Your task to perform on an android device: Search for razer thresher on target, select the first entry, add it to the cart, then select checkout. Image 0: 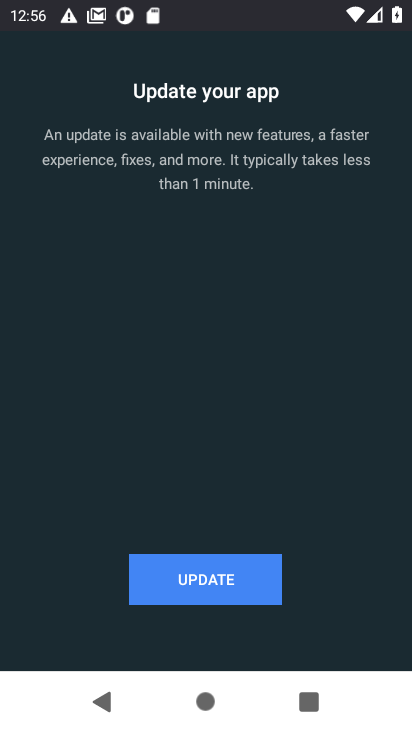
Step 0: press home button
Your task to perform on an android device: Search for razer thresher on target, select the first entry, add it to the cart, then select checkout. Image 1: 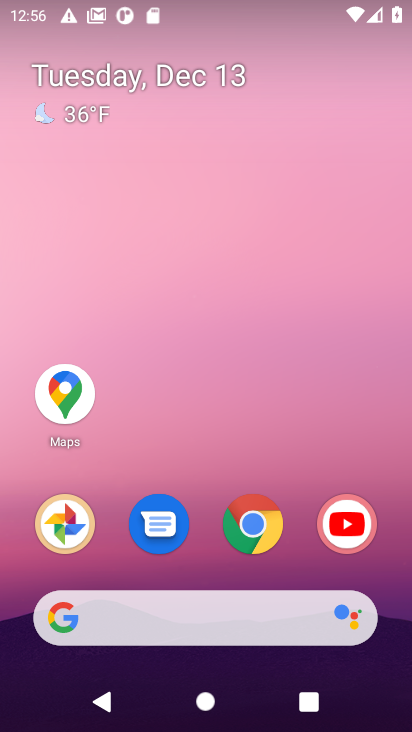
Step 1: click (256, 525)
Your task to perform on an android device: Search for razer thresher on target, select the first entry, add it to the cart, then select checkout. Image 2: 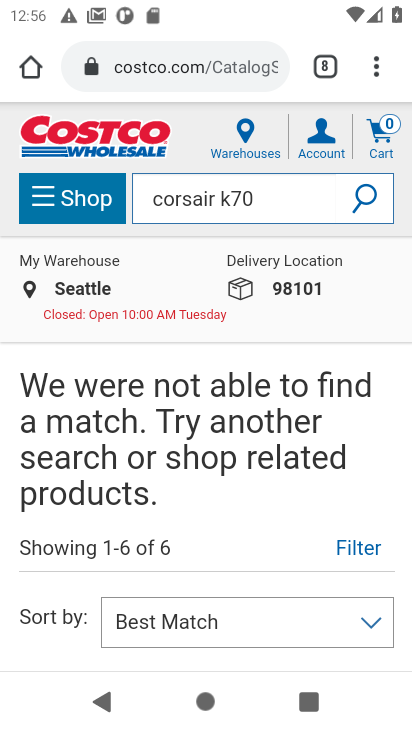
Step 2: click (180, 75)
Your task to perform on an android device: Search for razer thresher on target, select the first entry, add it to the cart, then select checkout. Image 3: 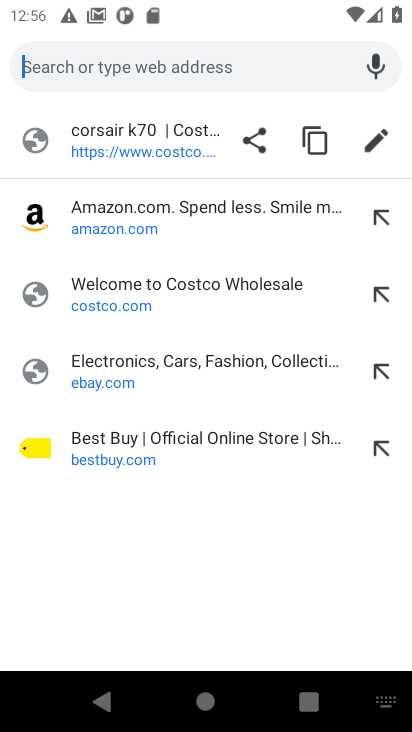
Step 3: type "target.com"
Your task to perform on an android device: Search for razer thresher on target, select the first entry, add it to the cart, then select checkout. Image 4: 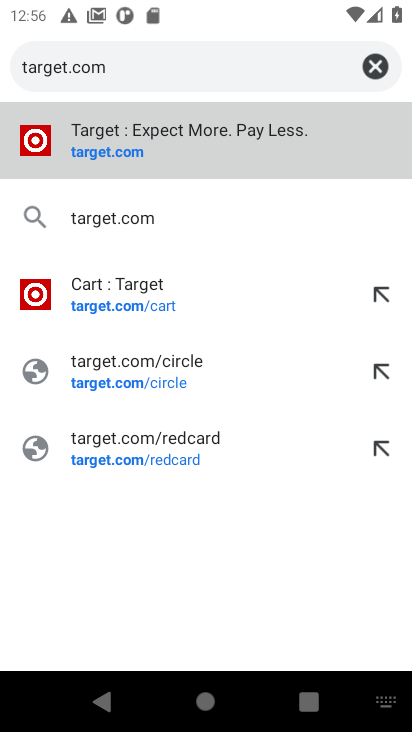
Step 4: click (117, 163)
Your task to perform on an android device: Search for razer thresher on target, select the first entry, add it to the cart, then select checkout. Image 5: 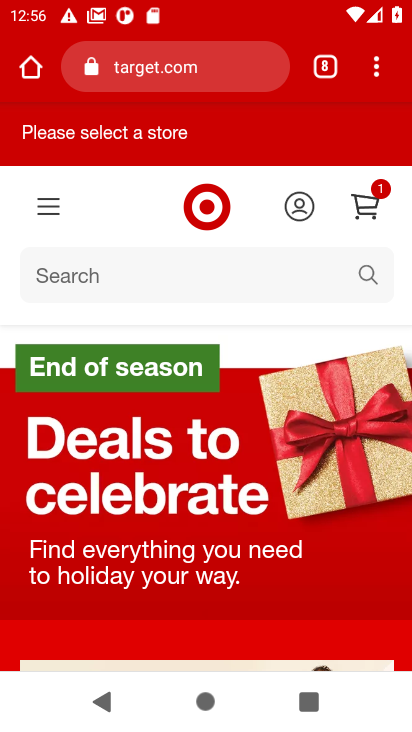
Step 5: click (43, 277)
Your task to perform on an android device: Search for razer thresher on target, select the first entry, add it to the cart, then select checkout. Image 6: 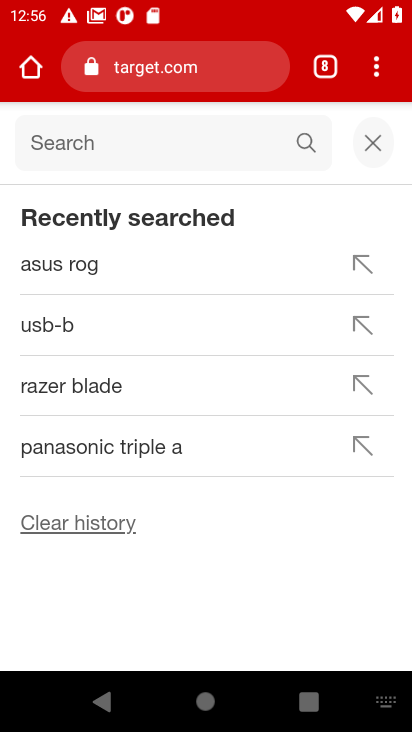
Step 6: type " razer thresher"
Your task to perform on an android device: Search for razer thresher on target, select the first entry, add it to the cart, then select checkout. Image 7: 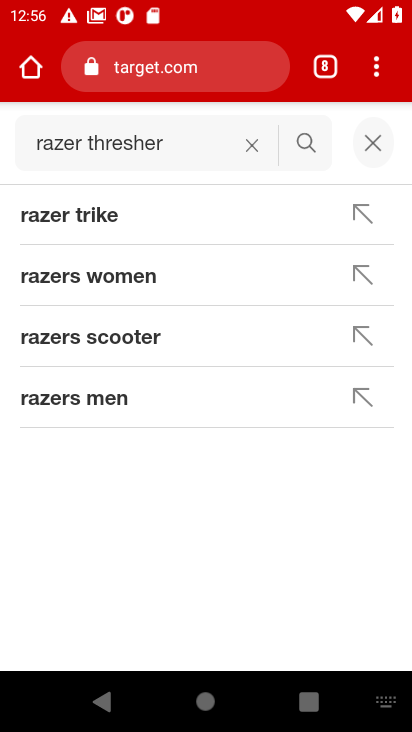
Step 7: click (303, 144)
Your task to perform on an android device: Search for razer thresher on target, select the first entry, add it to the cart, then select checkout. Image 8: 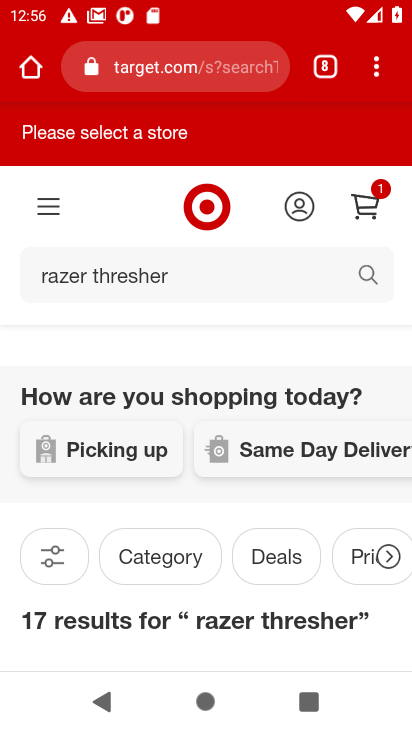
Step 8: task complete